Your task to perform on an android device: Do I have any events today? Image 0: 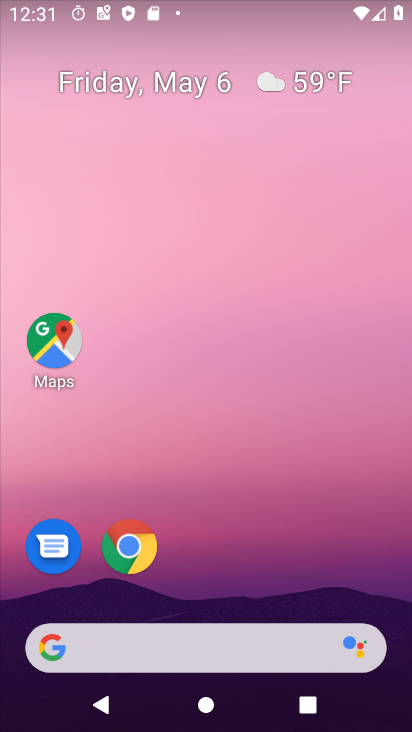
Step 0: drag from (251, 558) to (251, 171)
Your task to perform on an android device: Do I have any events today? Image 1: 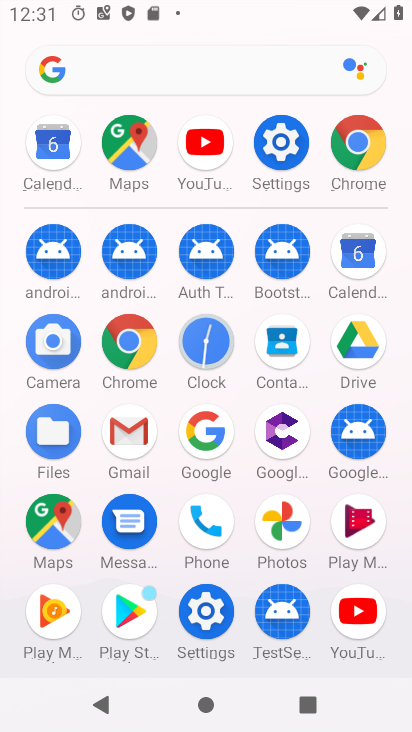
Step 1: click (370, 460)
Your task to perform on an android device: Do I have any events today? Image 2: 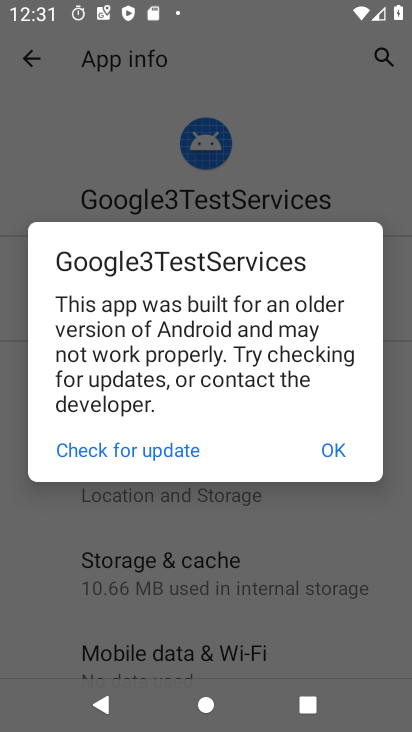
Step 2: press home button
Your task to perform on an android device: Do I have any events today? Image 3: 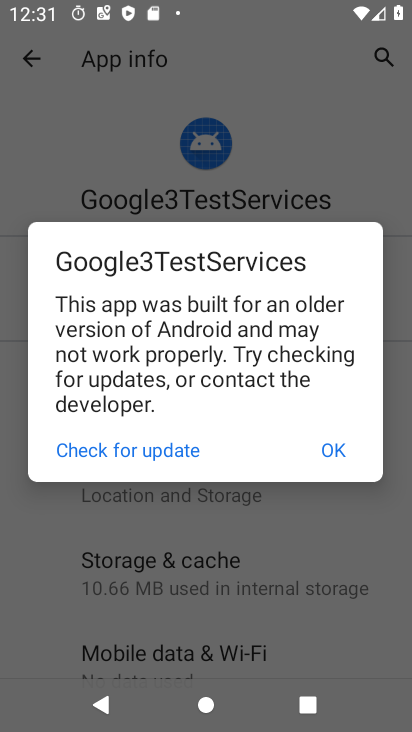
Step 3: press home button
Your task to perform on an android device: Do I have any events today? Image 4: 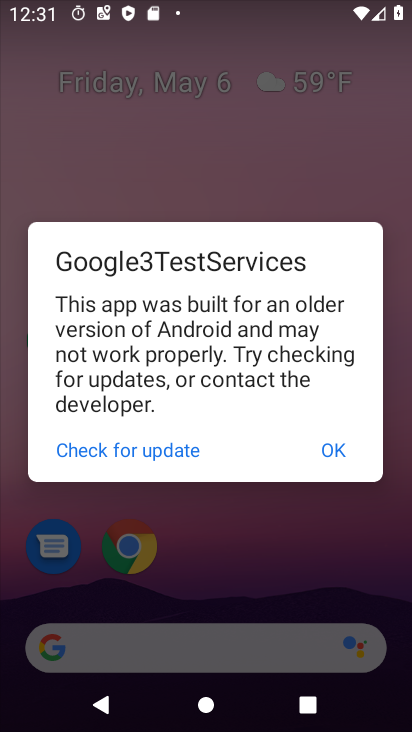
Step 4: click (338, 438)
Your task to perform on an android device: Do I have any events today? Image 5: 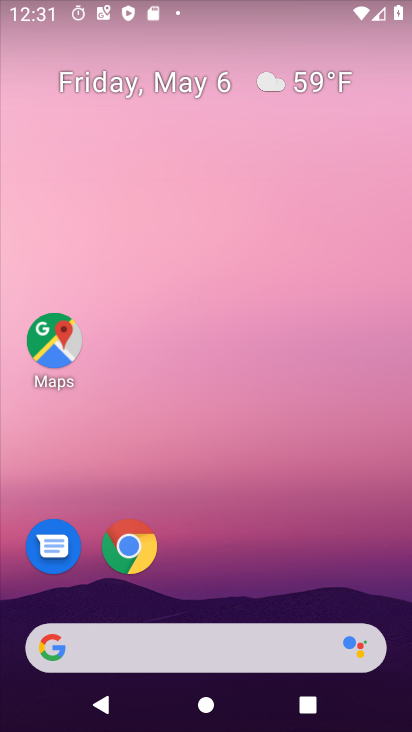
Step 5: drag from (245, 508) to (194, 50)
Your task to perform on an android device: Do I have any events today? Image 6: 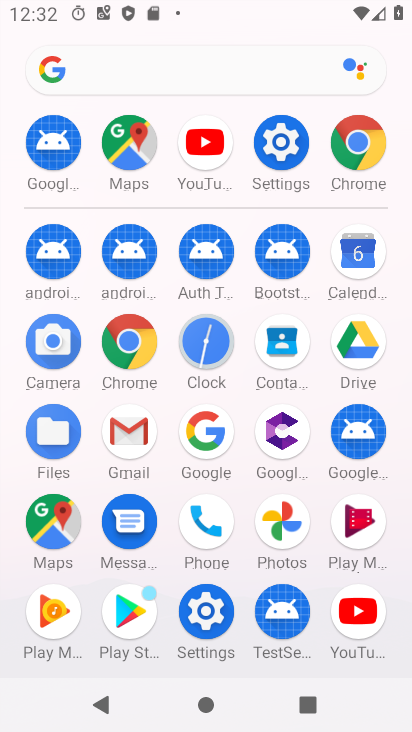
Step 6: click (361, 249)
Your task to perform on an android device: Do I have any events today? Image 7: 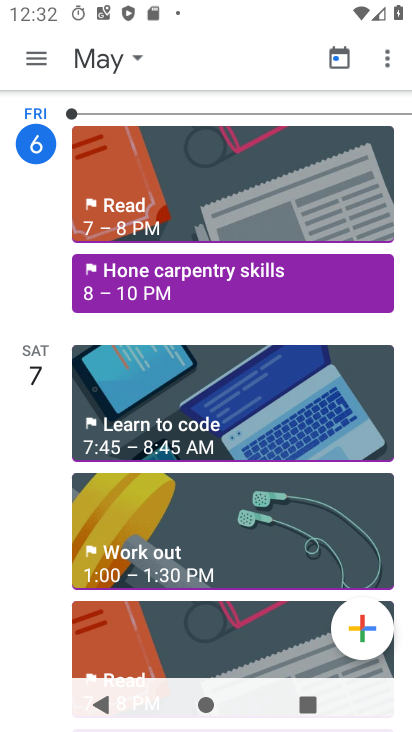
Step 7: click (28, 57)
Your task to perform on an android device: Do I have any events today? Image 8: 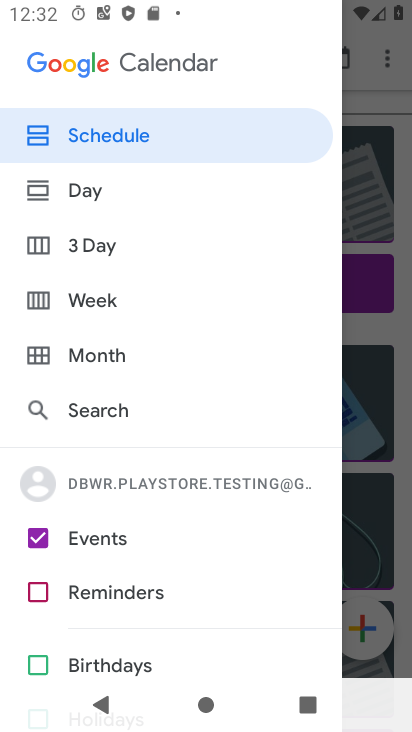
Step 8: click (385, 288)
Your task to perform on an android device: Do I have any events today? Image 9: 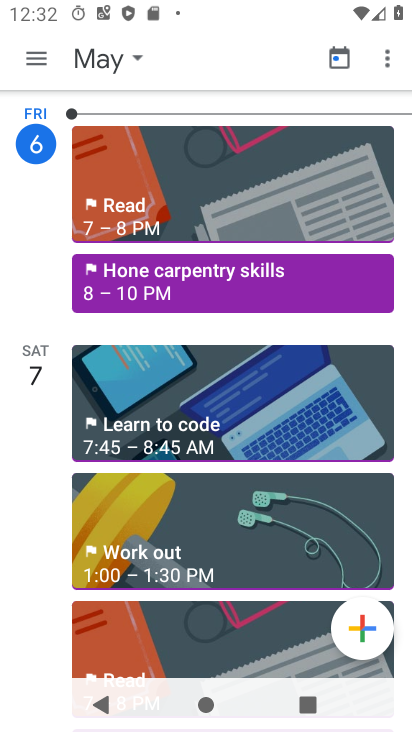
Step 9: task complete